Your task to perform on an android device: Open privacy settings Image 0: 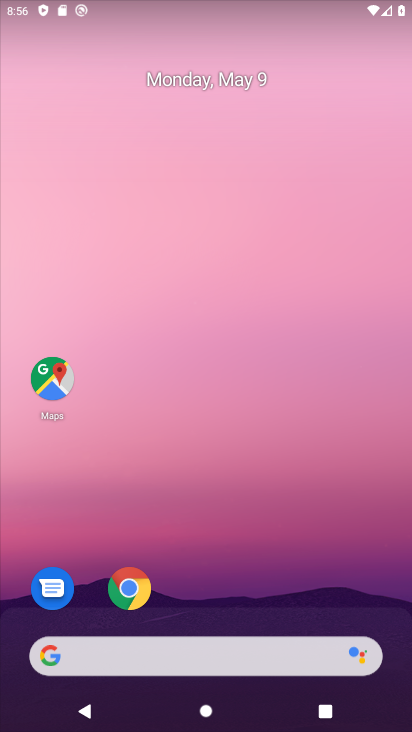
Step 0: drag from (364, 541) to (342, 114)
Your task to perform on an android device: Open privacy settings Image 1: 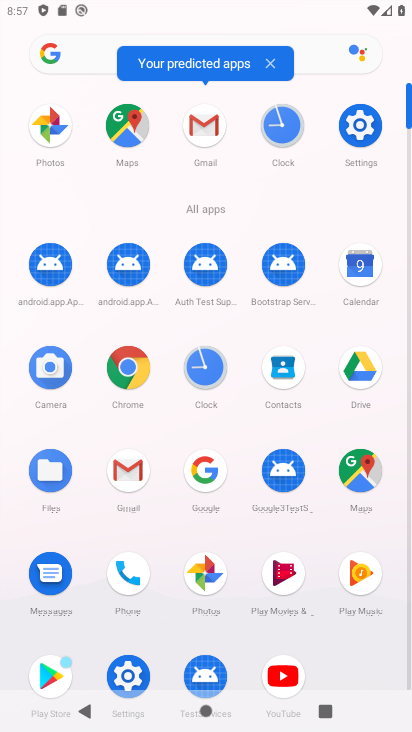
Step 1: drag from (236, 226) to (135, 604)
Your task to perform on an android device: Open privacy settings Image 2: 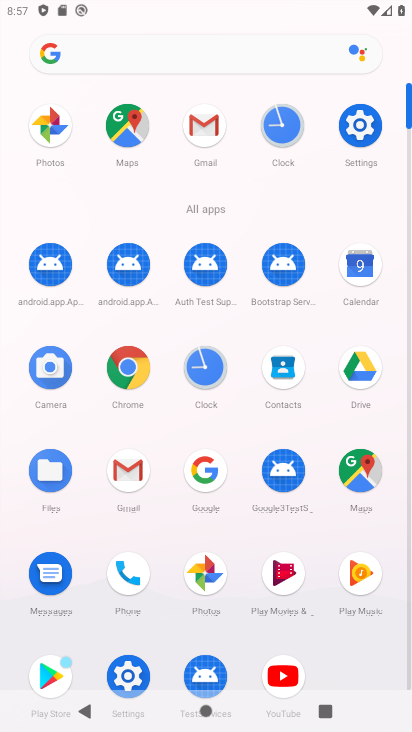
Step 2: click (129, 664)
Your task to perform on an android device: Open privacy settings Image 3: 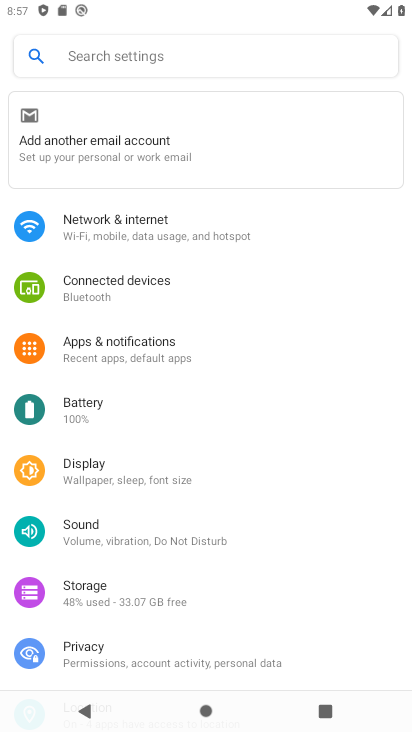
Step 3: click (104, 653)
Your task to perform on an android device: Open privacy settings Image 4: 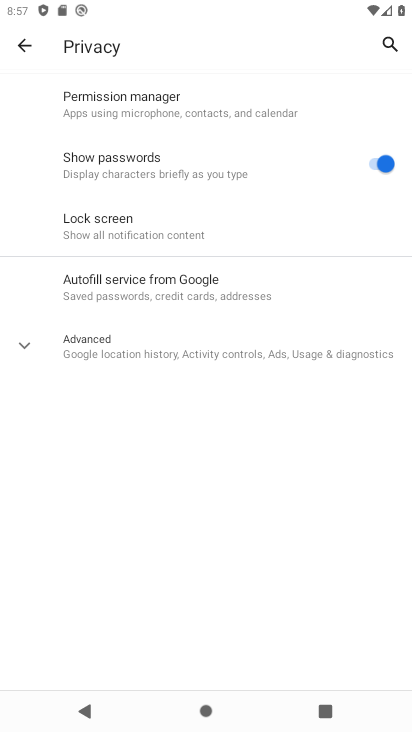
Step 4: task complete